Your task to perform on an android device: Go to sound settings Image 0: 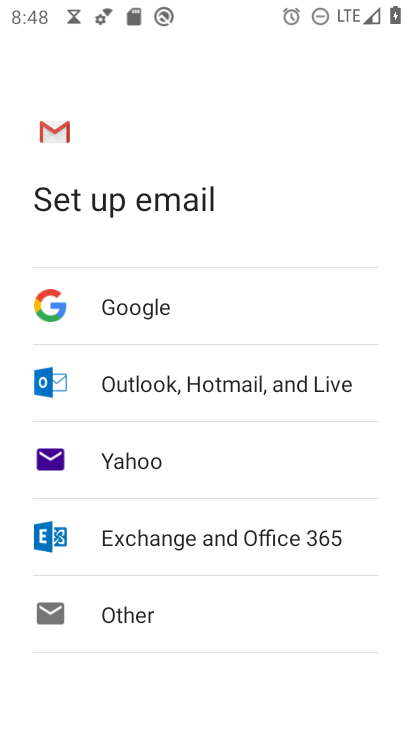
Step 0: press home button
Your task to perform on an android device: Go to sound settings Image 1: 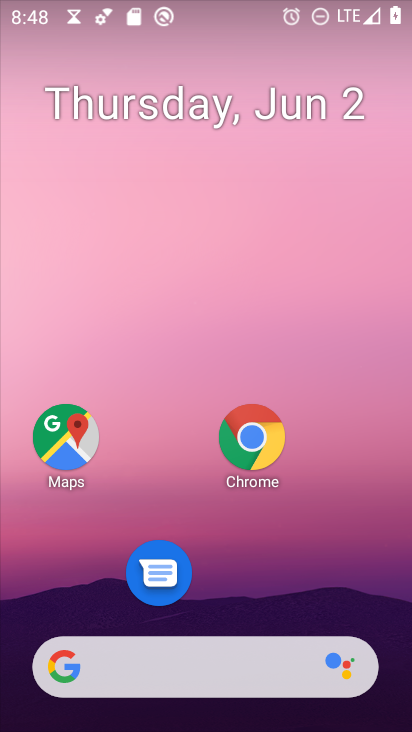
Step 1: drag from (198, 632) to (278, 175)
Your task to perform on an android device: Go to sound settings Image 2: 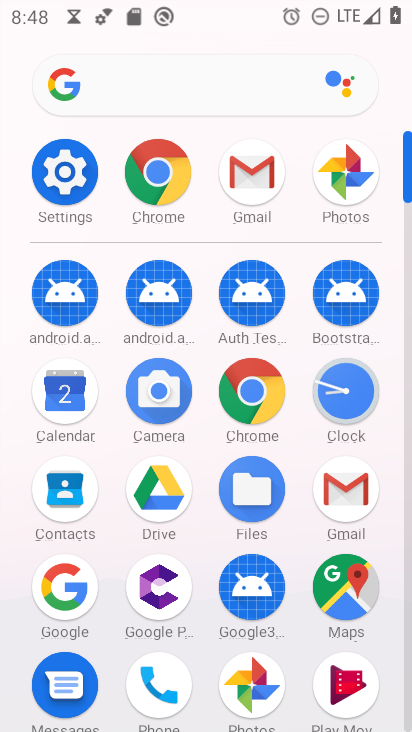
Step 2: click (64, 181)
Your task to perform on an android device: Go to sound settings Image 3: 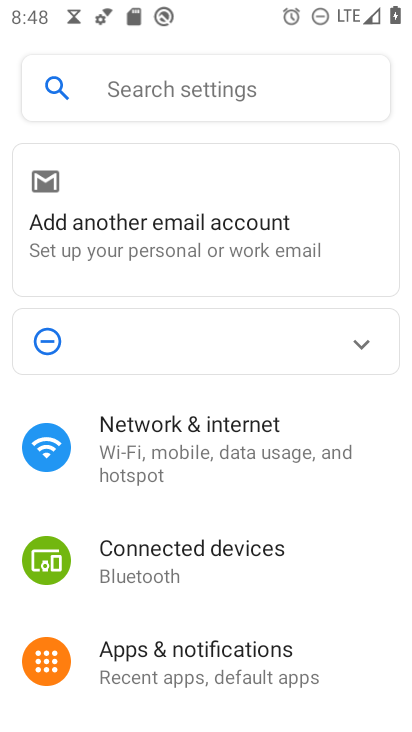
Step 3: drag from (267, 630) to (332, 135)
Your task to perform on an android device: Go to sound settings Image 4: 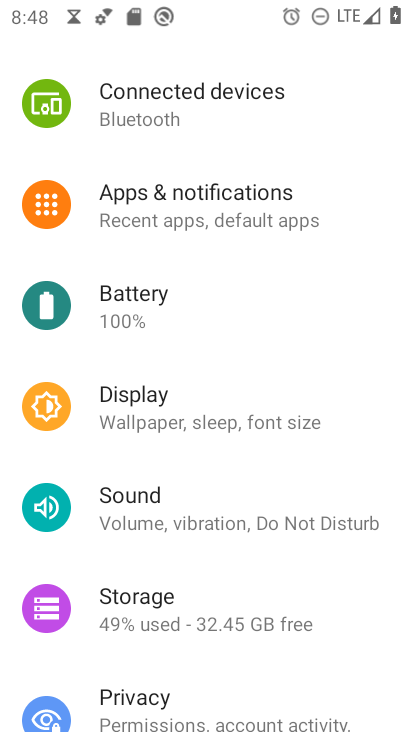
Step 4: click (149, 508)
Your task to perform on an android device: Go to sound settings Image 5: 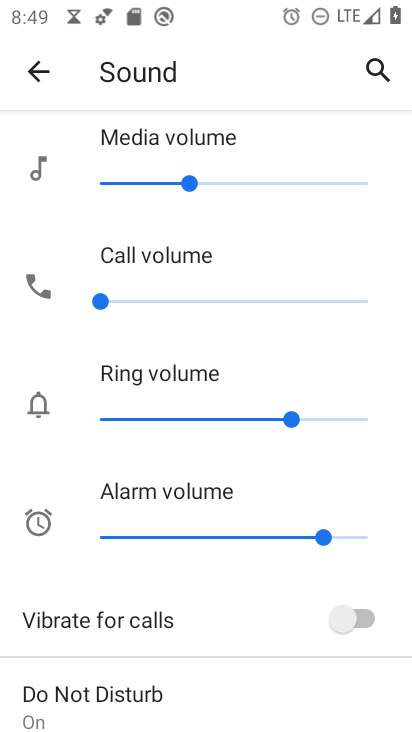
Step 5: task complete